Your task to perform on an android device: turn on data saver in the chrome app Image 0: 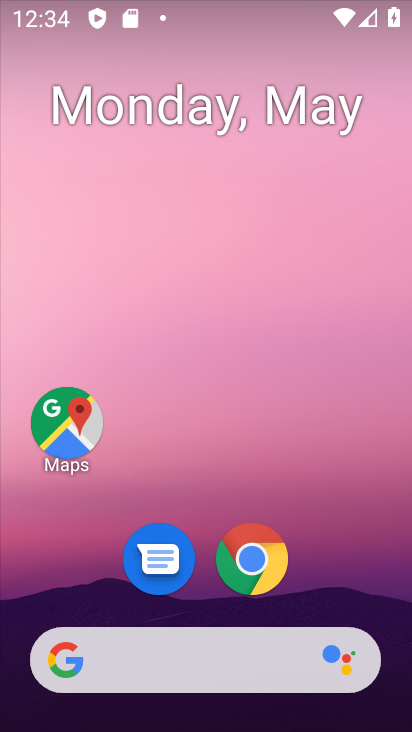
Step 0: click (256, 576)
Your task to perform on an android device: turn on data saver in the chrome app Image 1: 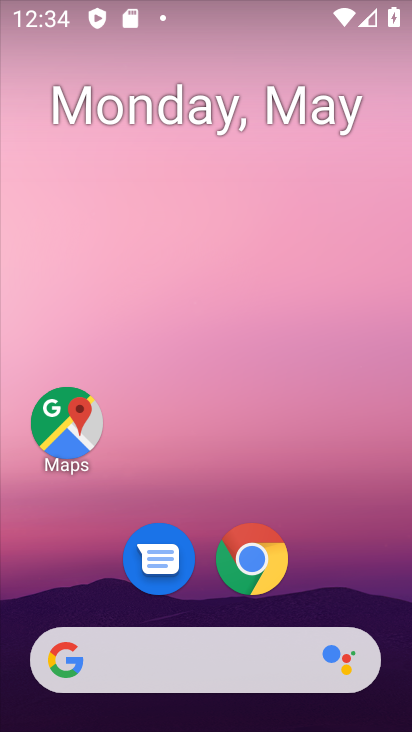
Step 1: click (256, 576)
Your task to perform on an android device: turn on data saver in the chrome app Image 2: 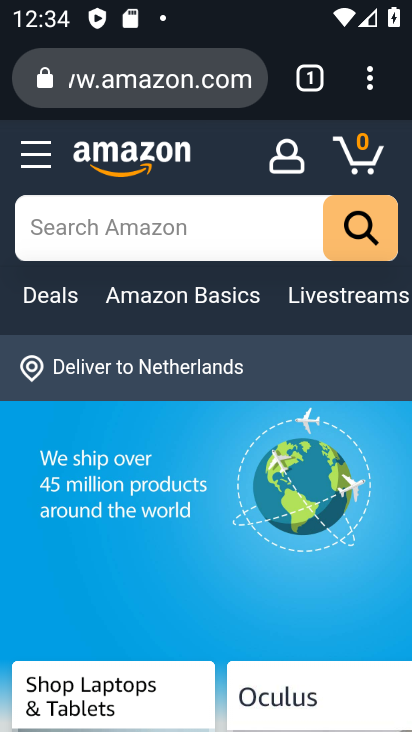
Step 2: click (375, 83)
Your task to perform on an android device: turn on data saver in the chrome app Image 3: 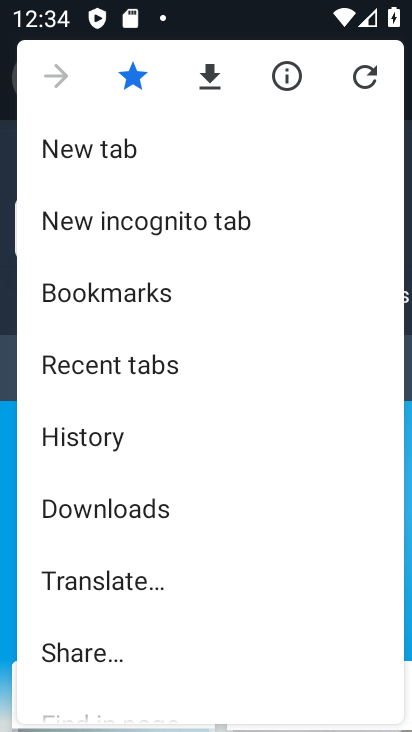
Step 3: drag from (249, 667) to (327, 227)
Your task to perform on an android device: turn on data saver in the chrome app Image 4: 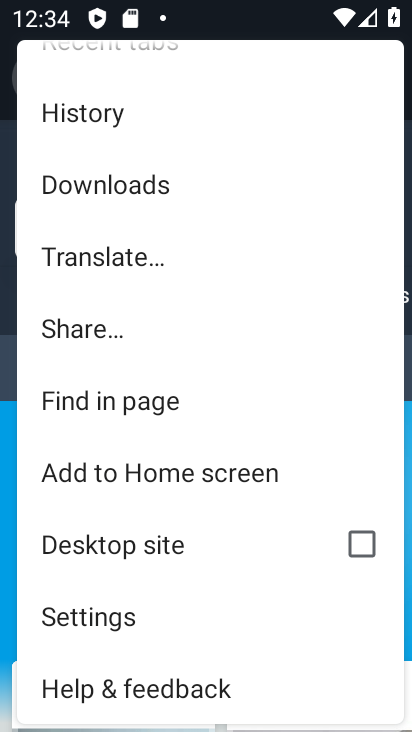
Step 4: click (126, 614)
Your task to perform on an android device: turn on data saver in the chrome app Image 5: 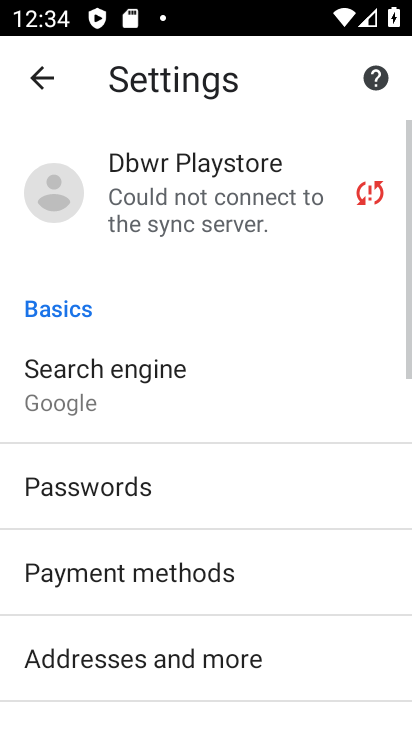
Step 5: drag from (228, 709) to (302, 194)
Your task to perform on an android device: turn on data saver in the chrome app Image 6: 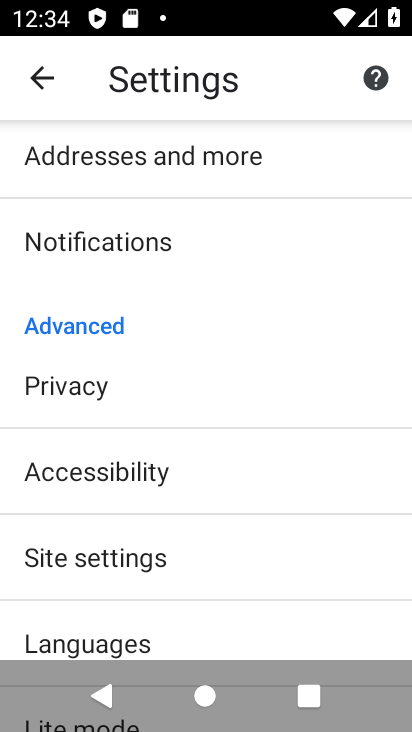
Step 6: drag from (163, 657) to (248, 134)
Your task to perform on an android device: turn on data saver in the chrome app Image 7: 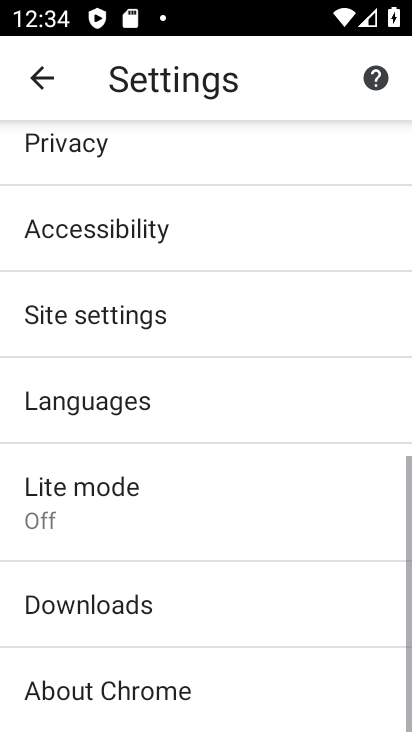
Step 7: click (106, 528)
Your task to perform on an android device: turn on data saver in the chrome app Image 8: 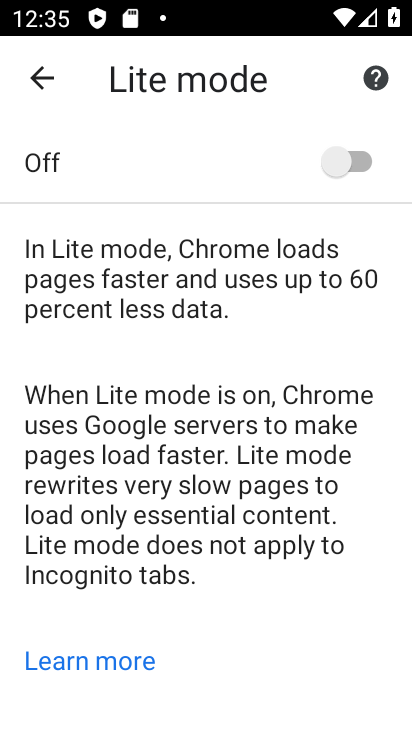
Step 8: click (365, 156)
Your task to perform on an android device: turn on data saver in the chrome app Image 9: 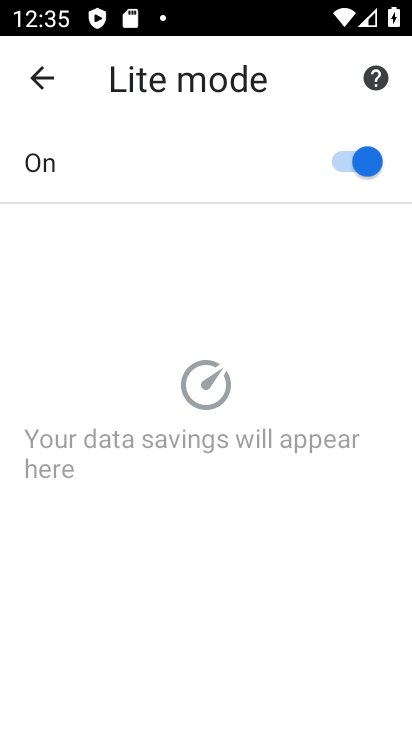
Step 9: task complete